Your task to perform on an android device: uninstall "Grab" Image 0: 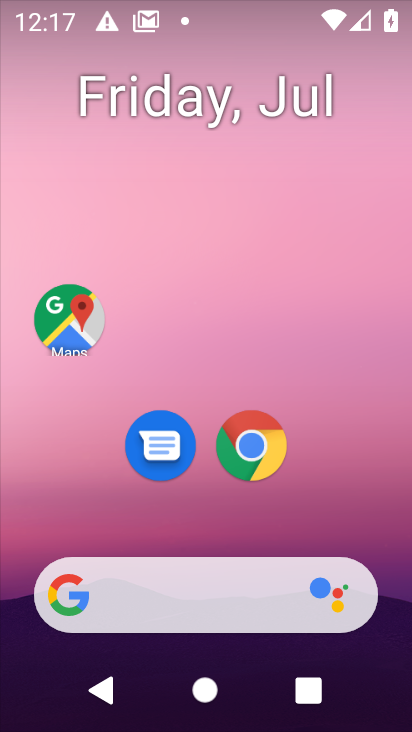
Step 0: drag from (175, 519) to (160, 78)
Your task to perform on an android device: uninstall "Grab" Image 1: 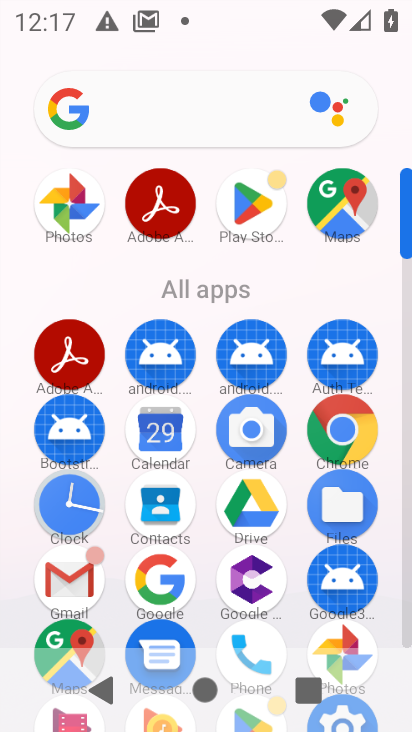
Step 1: click (263, 213)
Your task to perform on an android device: uninstall "Grab" Image 2: 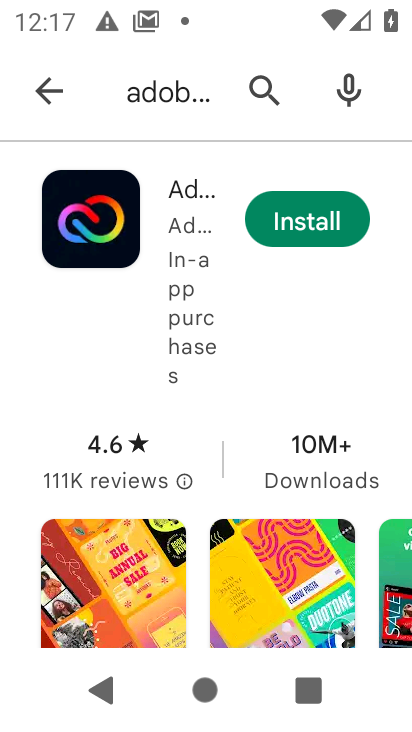
Step 2: click (161, 101)
Your task to perform on an android device: uninstall "Grab" Image 3: 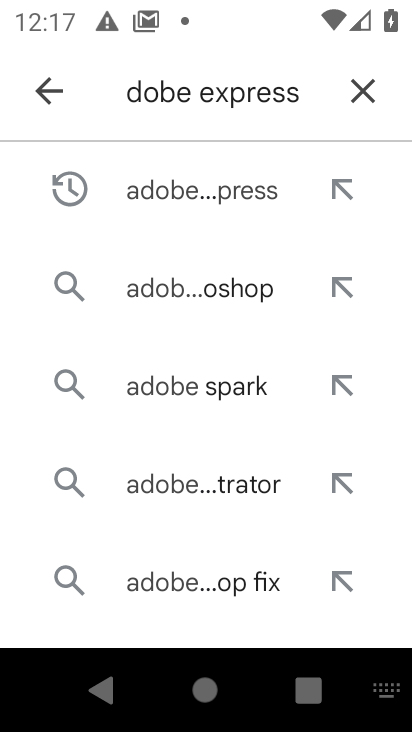
Step 3: click (379, 82)
Your task to perform on an android device: uninstall "Grab" Image 4: 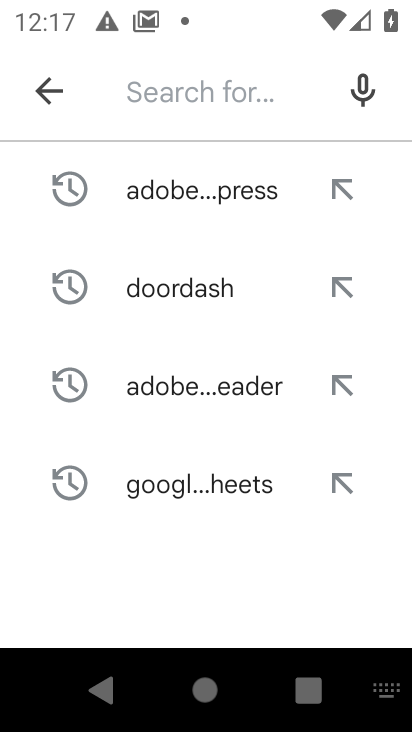
Step 4: type "Grab"
Your task to perform on an android device: uninstall "Grab" Image 5: 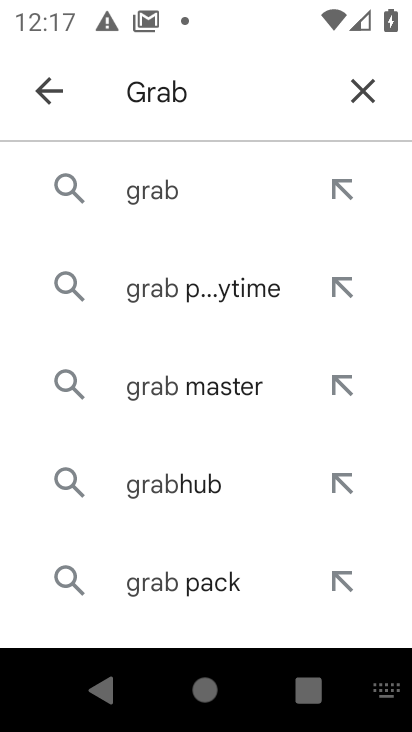
Step 5: click (205, 202)
Your task to perform on an android device: uninstall "Grab" Image 6: 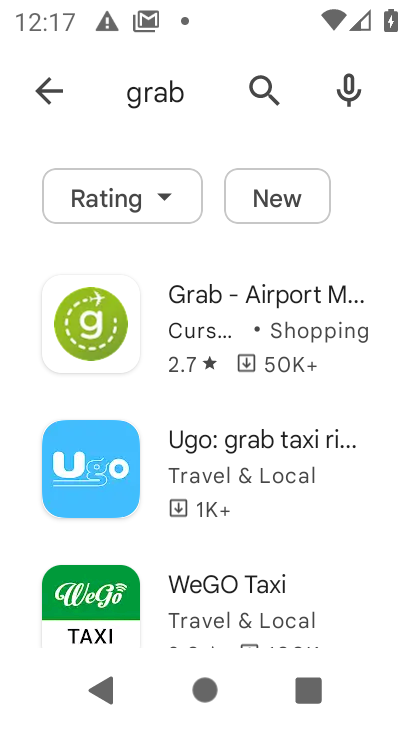
Step 6: click (192, 303)
Your task to perform on an android device: uninstall "Grab" Image 7: 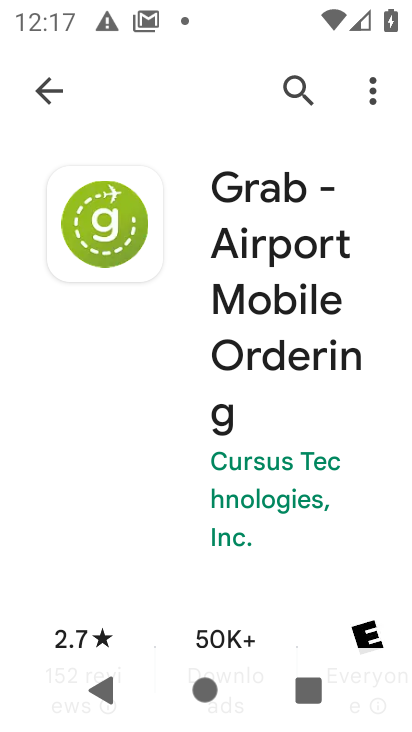
Step 7: task complete